Your task to perform on an android device: check storage Image 0: 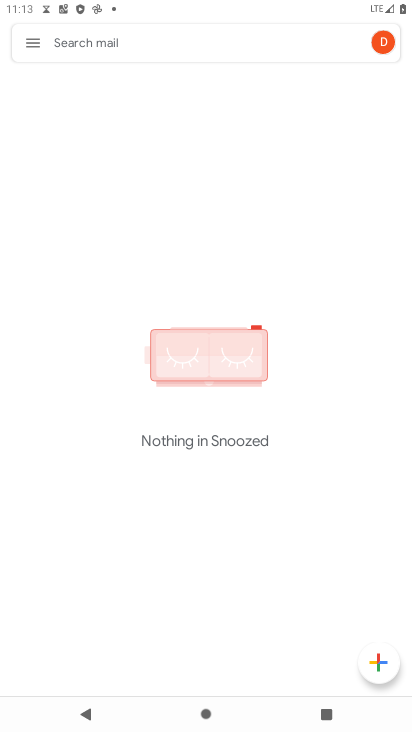
Step 0: press home button
Your task to perform on an android device: check storage Image 1: 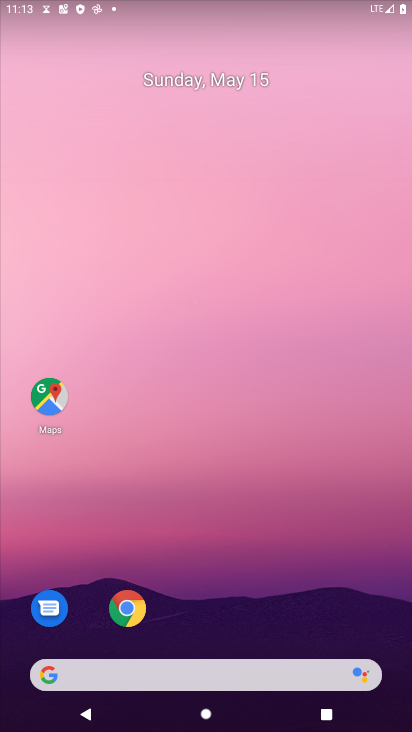
Step 1: drag from (291, 578) to (299, 20)
Your task to perform on an android device: check storage Image 2: 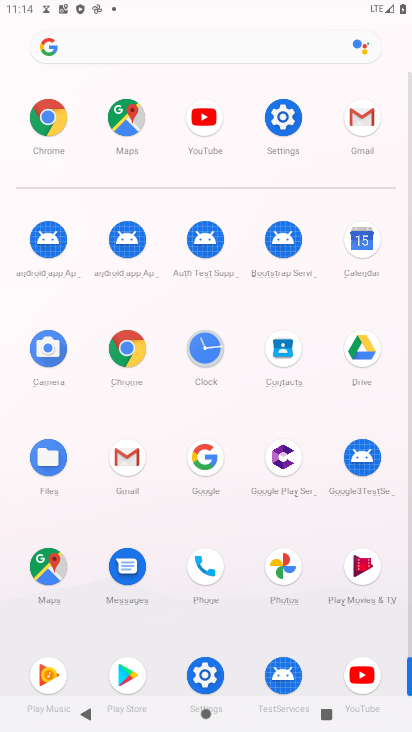
Step 2: click (285, 123)
Your task to perform on an android device: check storage Image 3: 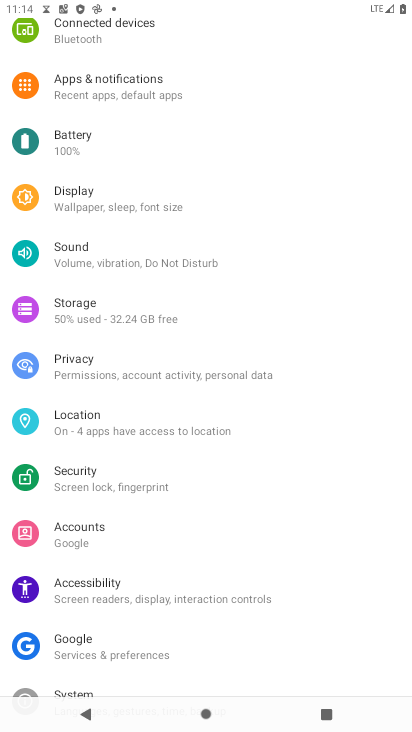
Step 3: drag from (242, 266) to (185, 662)
Your task to perform on an android device: check storage Image 4: 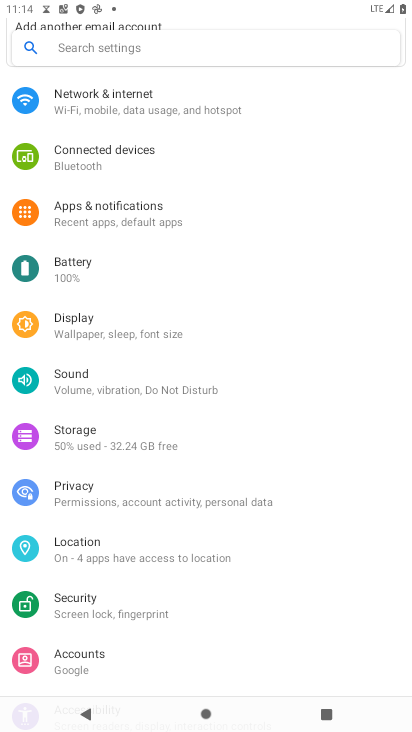
Step 4: drag from (236, 251) to (168, 719)
Your task to perform on an android device: check storage Image 5: 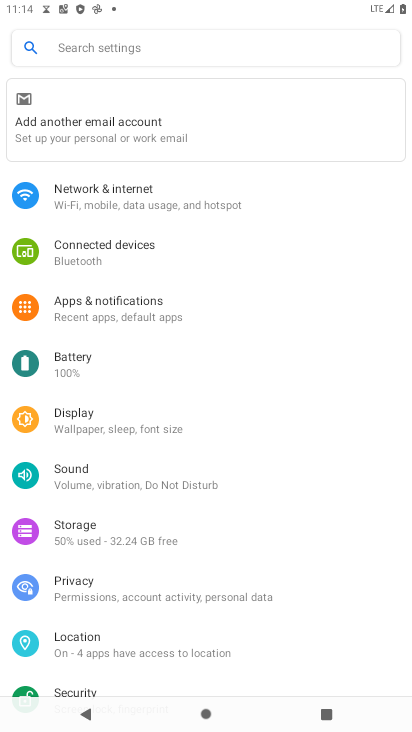
Step 5: click (119, 521)
Your task to perform on an android device: check storage Image 6: 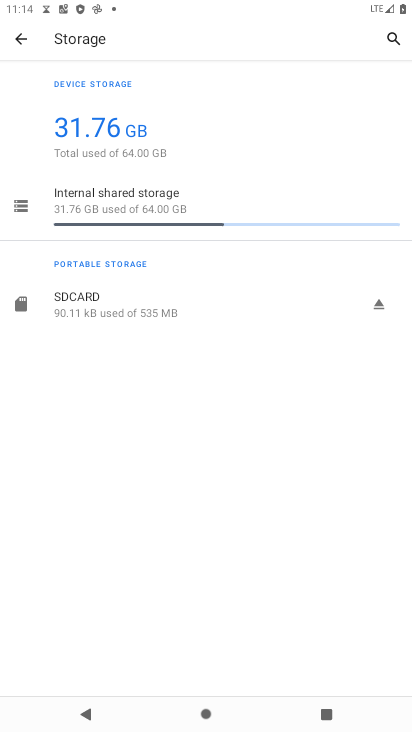
Step 6: click (163, 190)
Your task to perform on an android device: check storage Image 7: 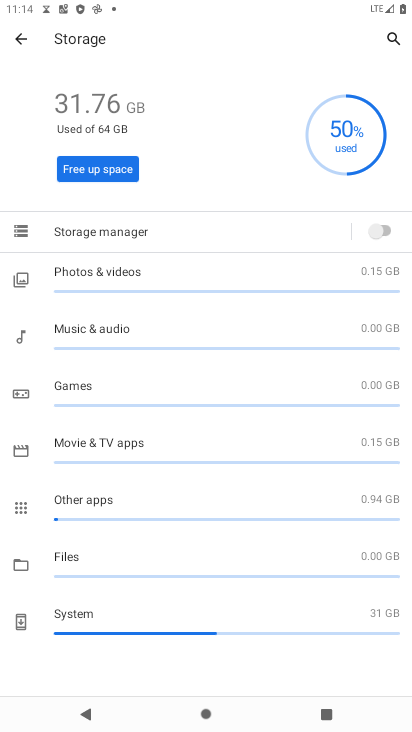
Step 7: task complete